Your task to perform on an android device: change notifications settings Image 0: 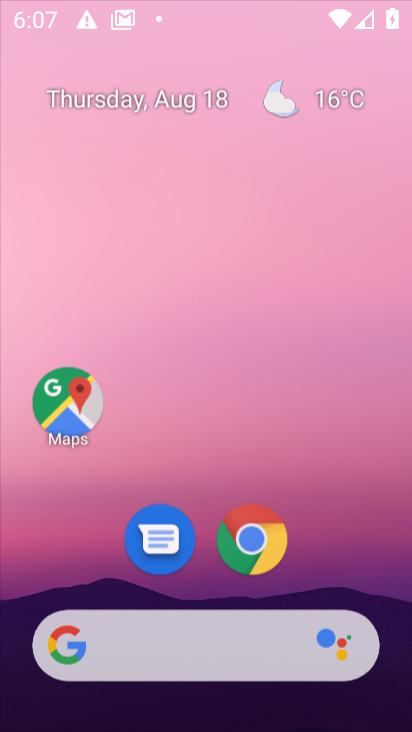
Step 0: click (256, 531)
Your task to perform on an android device: change notifications settings Image 1: 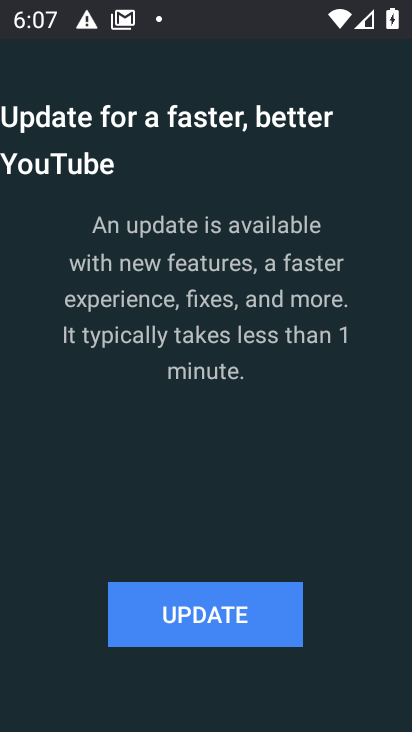
Step 1: press back button
Your task to perform on an android device: change notifications settings Image 2: 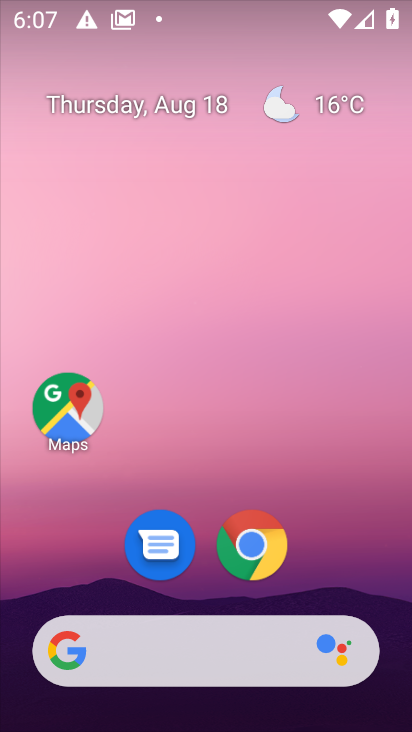
Step 2: drag from (333, 570) to (189, 121)
Your task to perform on an android device: change notifications settings Image 3: 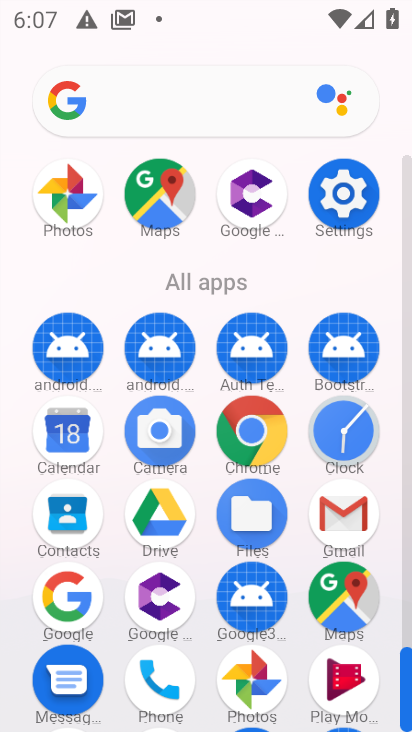
Step 3: click (341, 193)
Your task to perform on an android device: change notifications settings Image 4: 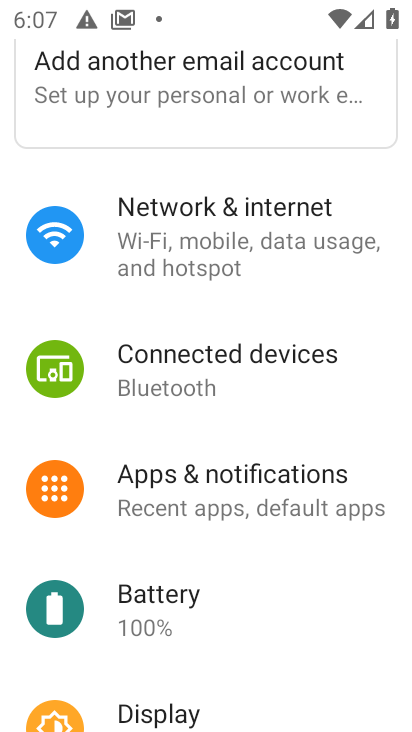
Step 4: click (227, 474)
Your task to perform on an android device: change notifications settings Image 5: 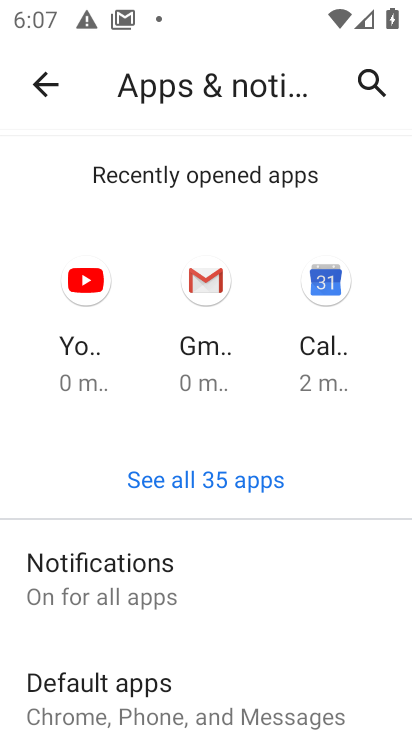
Step 5: drag from (244, 560) to (233, 321)
Your task to perform on an android device: change notifications settings Image 6: 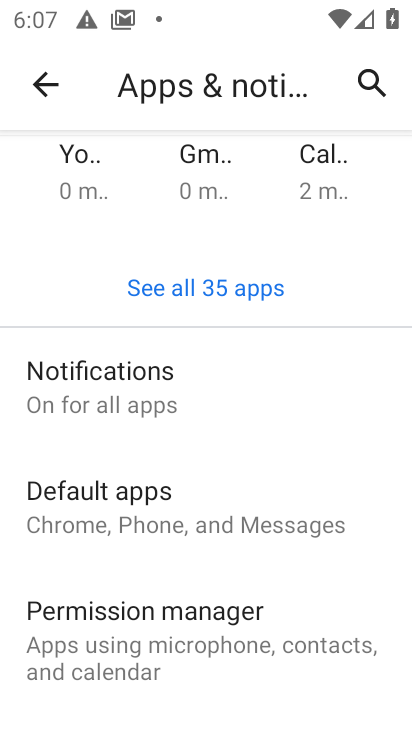
Step 6: click (113, 372)
Your task to perform on an android device: change notifications settings Image 7: 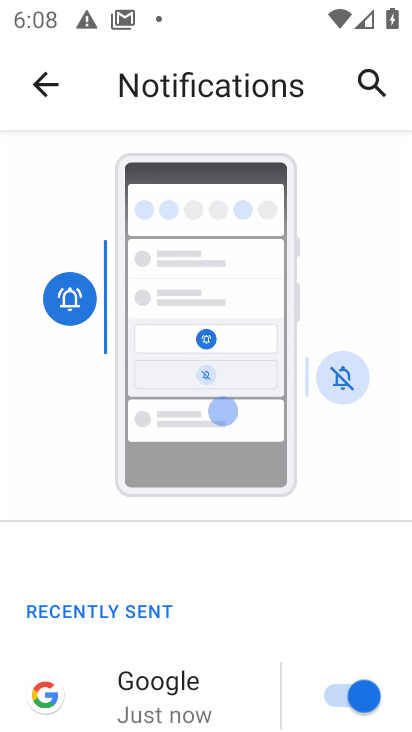
Step 7: drag from (301, 566) to (294, 362)
Your task to perform on an android device: change notifications settings Image 8: 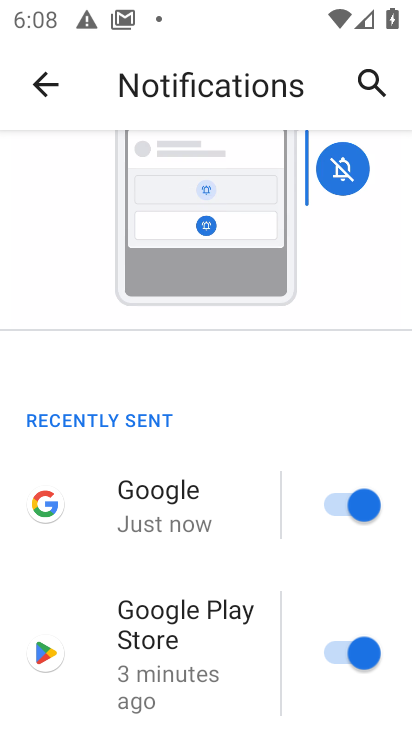
Step 8: drag from (230, 403) to (190, 169)
Your task to perform on an android device: change notifications settings Image 9: 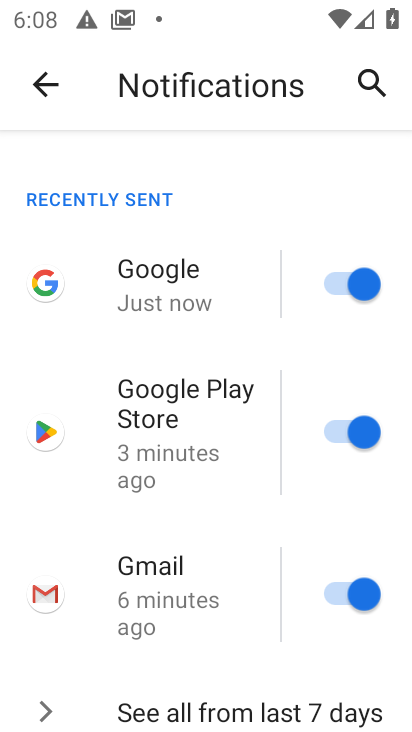
Step 9: drag from (294, 488) to (286, 222)
Your task to perform on an android device: change notifications settings Image 10: 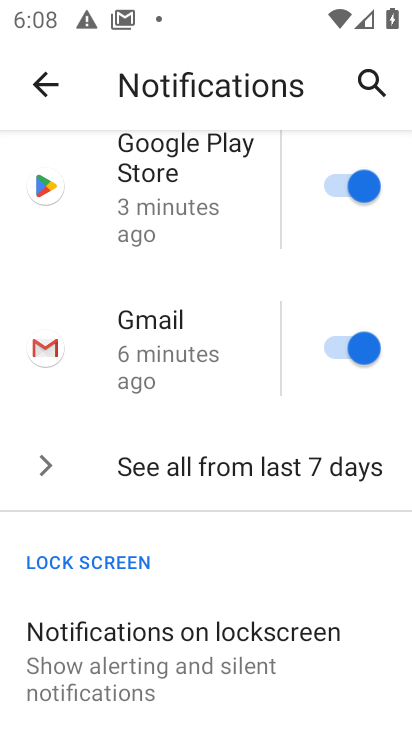
Step 10: drag from (244, 567) to (200, 283)
Your task to perform on an android device: change notifications settings Image 11: 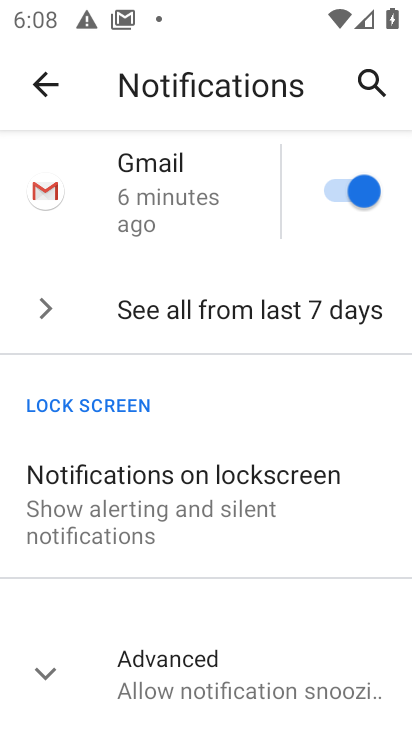
Step 11: click (47, 676)
Your task to perform on an android device: change notifications settings Image 12: 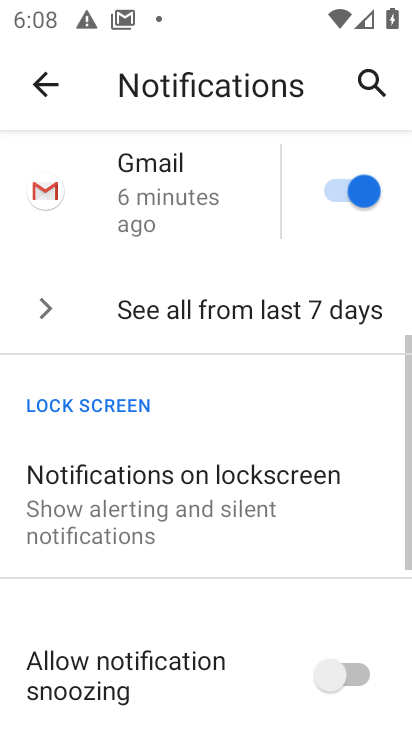
Step 12: task complete